Your task to perform on an android device: Go to Yahoo.com Image 0: 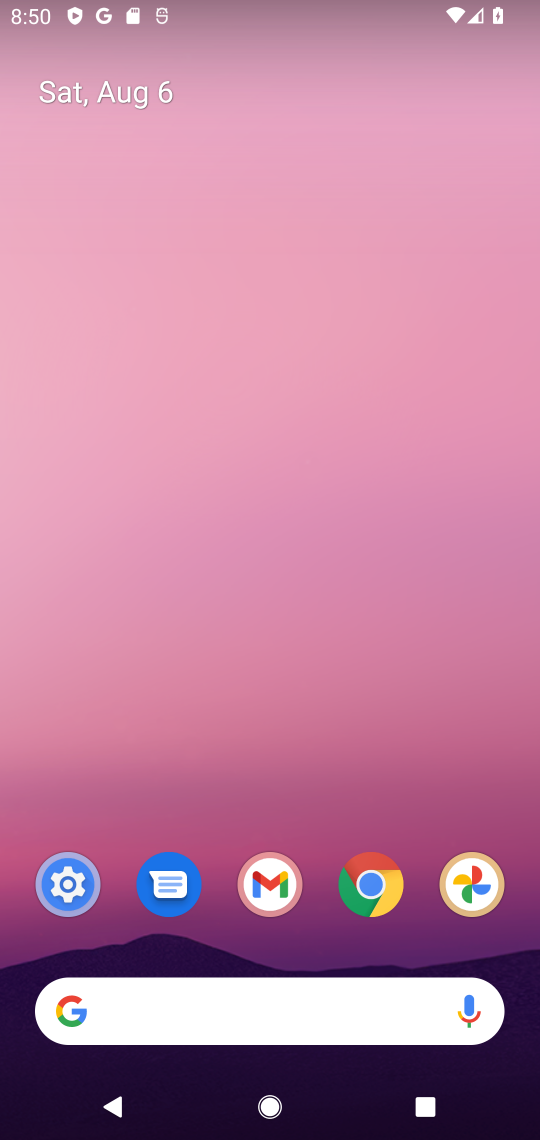
Step 0: click (372, 885)
Your task to perform on an android device: Go to Yahoo.com Image 1: 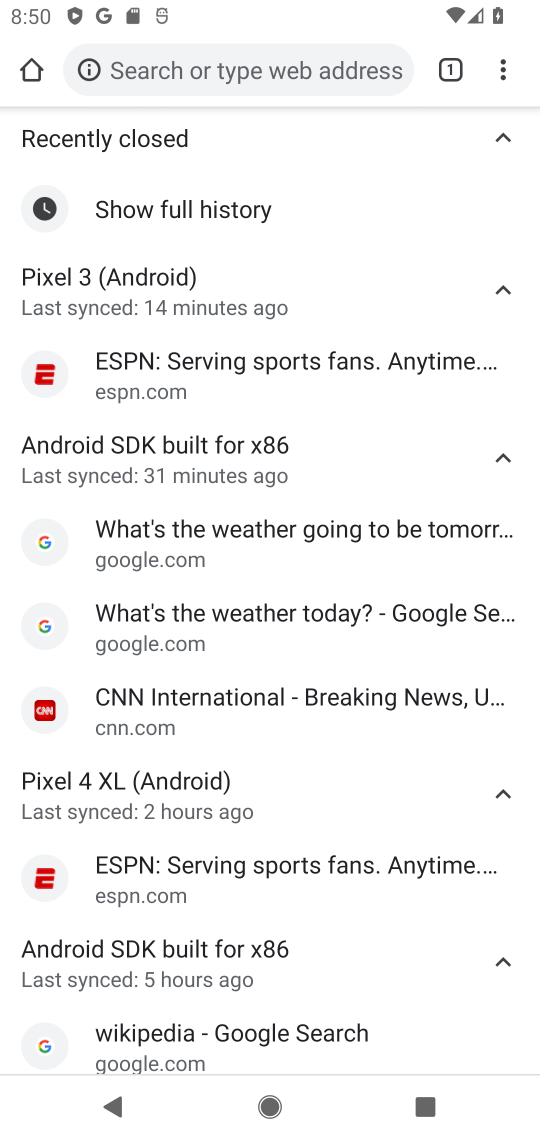
Step 1: click (209, 67)
Your task to perform on an android device: Go to Yahoo.com Image 2: 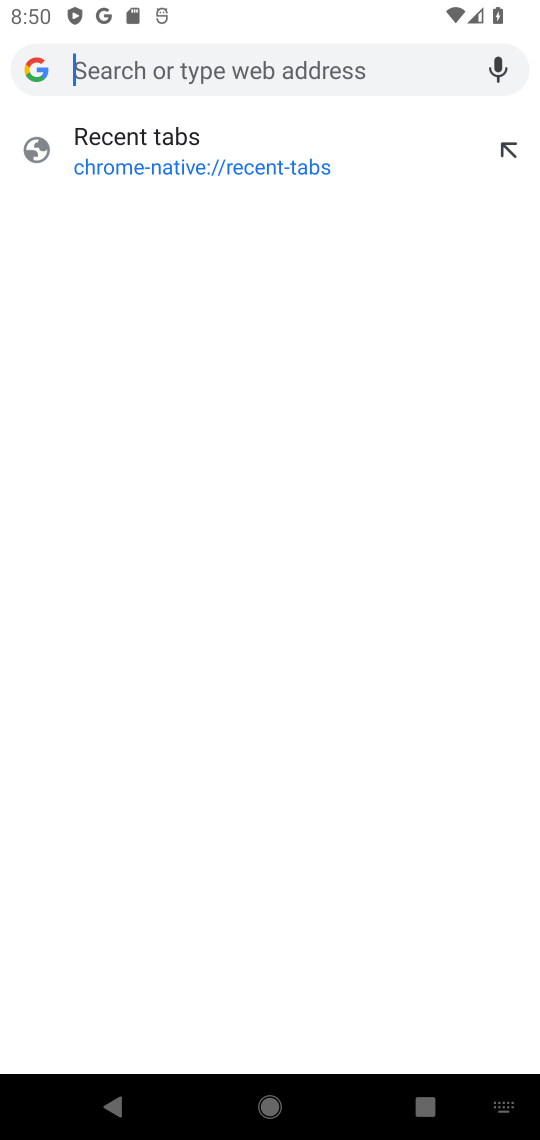
Step 2: type "yahoo.com"
Your task to perform on an android device: Go to Yahoo.com Image 3: 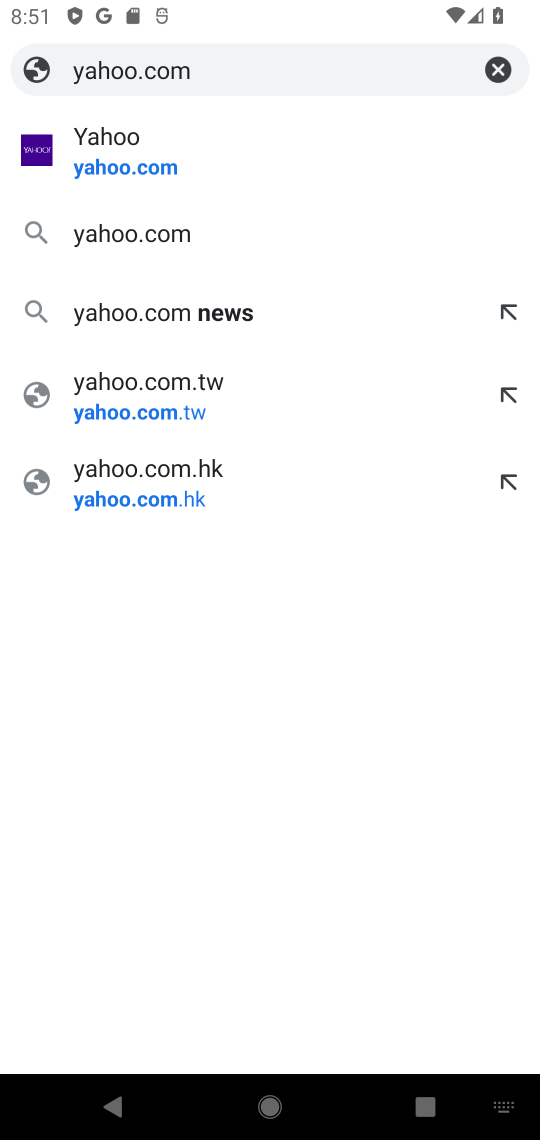
Step 3: click (118, 128)
Your task to perform on an android device: Go to Yahoo.com Image 4: 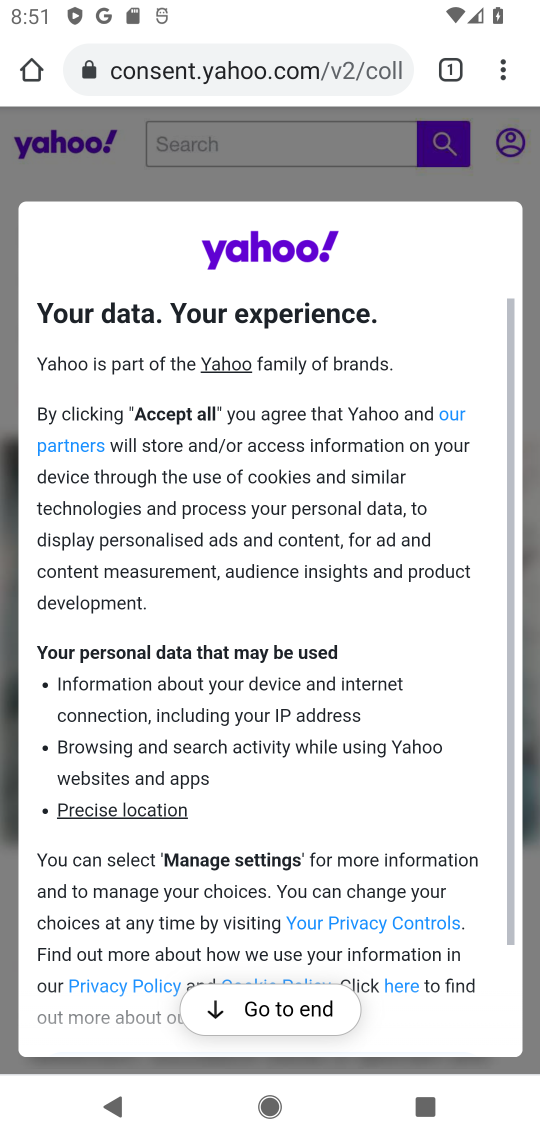
Step 4: click (245, 1006)
Your task to perform on an android device: Go to Yahoo.com Image 5: 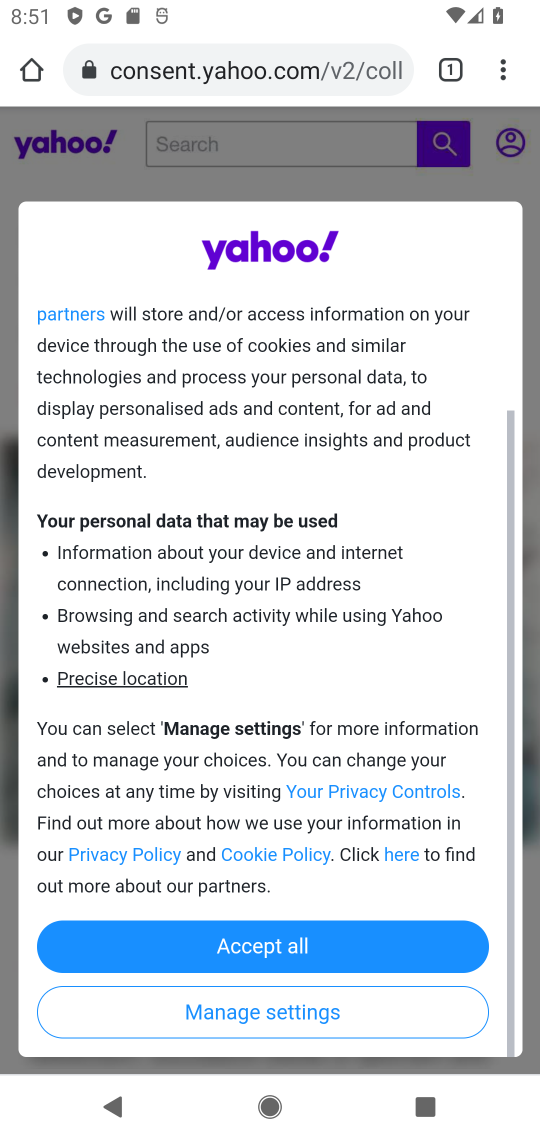
Step 5: click (253, 949)
Your task to perform on an android device: Go to Yahoo.com Image 6: 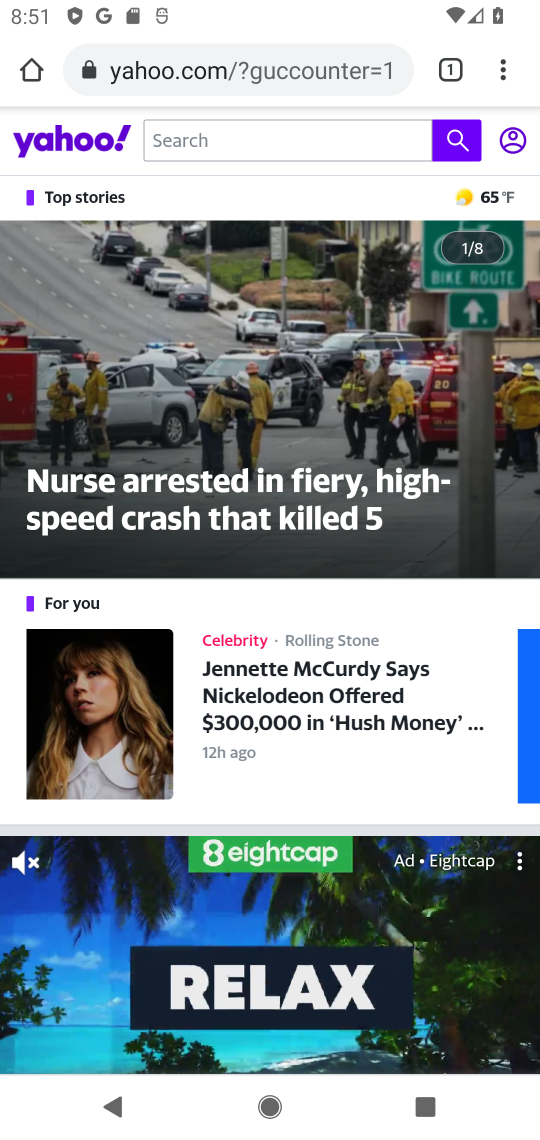
Step 6: task complete